Your task to perform on an android device: Open network settings Image 0: 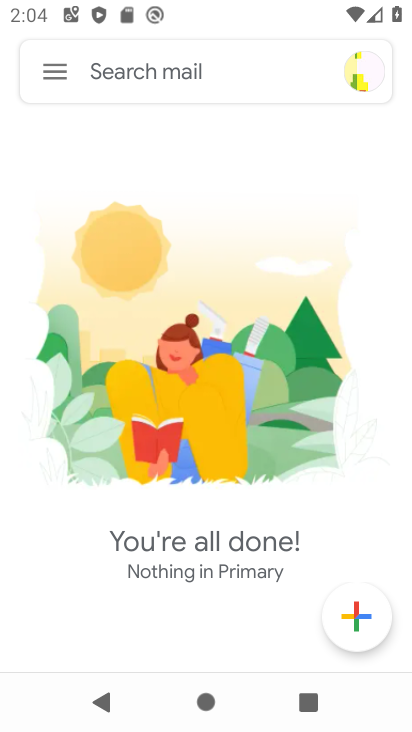
Step 0: press home button
Your task to perform on an android device: Open network settings Image 1: 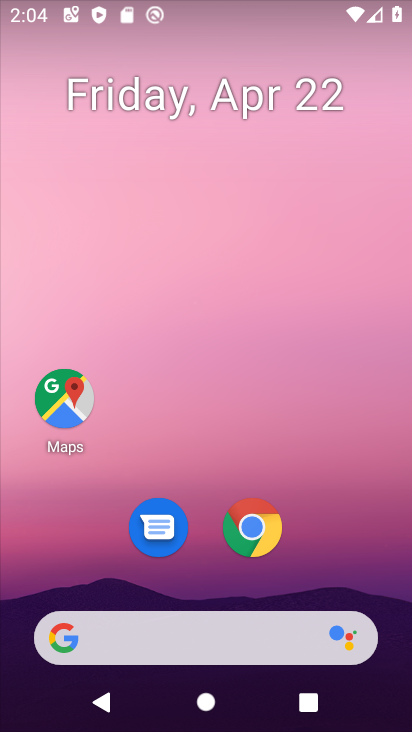
Step 1: drag from (294, 566) to (323, 115)
Your task to perform on an android device: Open network settings Image 2: 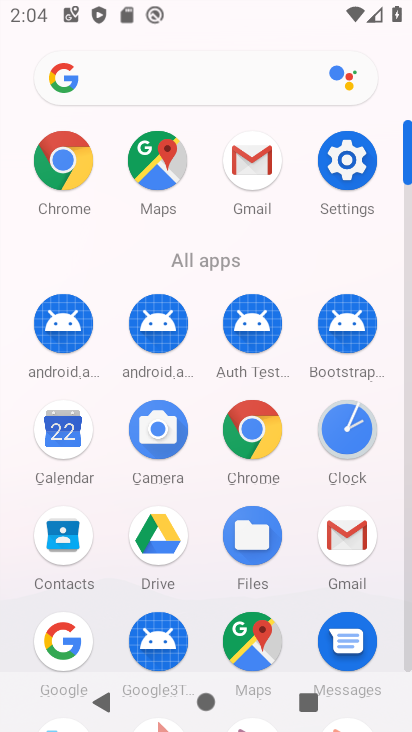
Step 2: drag from (308, 311) to (380, 34)
Your task to perform on an android device: Open network settings Image 3: 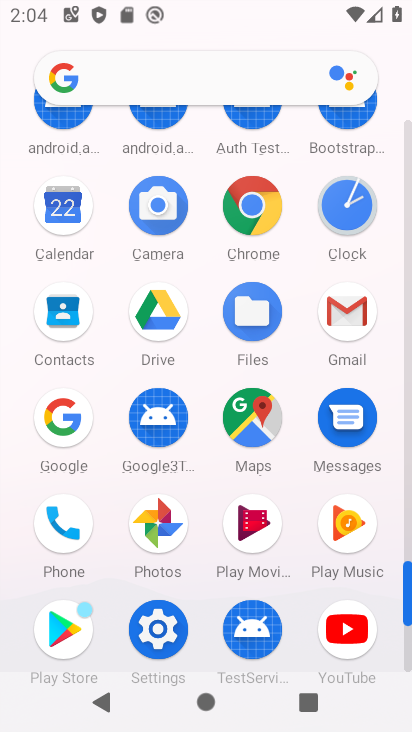
Step 3: click (156, 619)
Your task to perform on an android device: Open network settings Image 4: 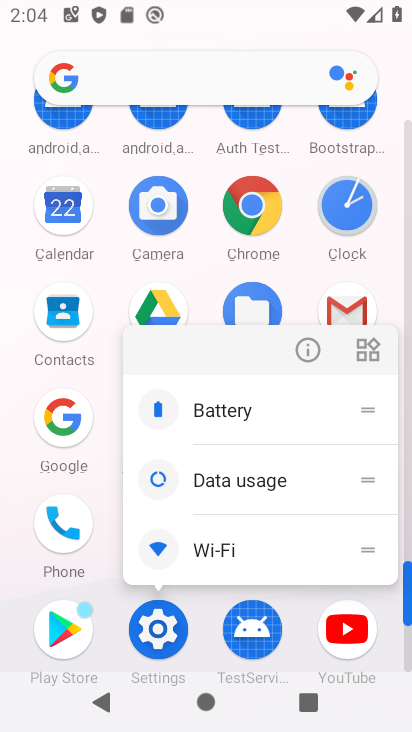
Step 4: click (167, 633)
Your task to perform on an android device: Open network settings Image 5: 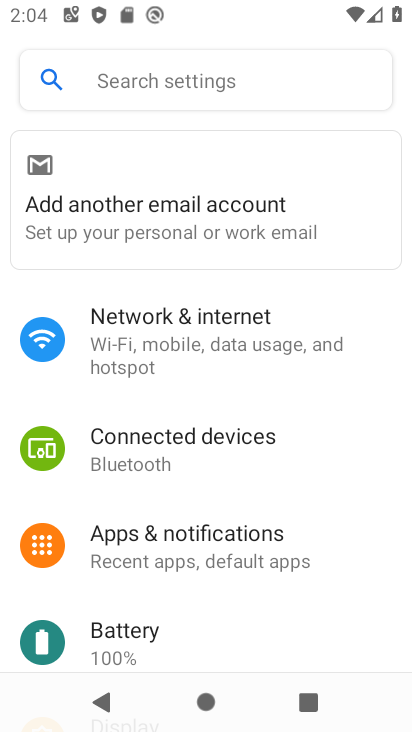
Step 5: click (175, 340)
Your task to perform on an android device: Open network settings Image 6: 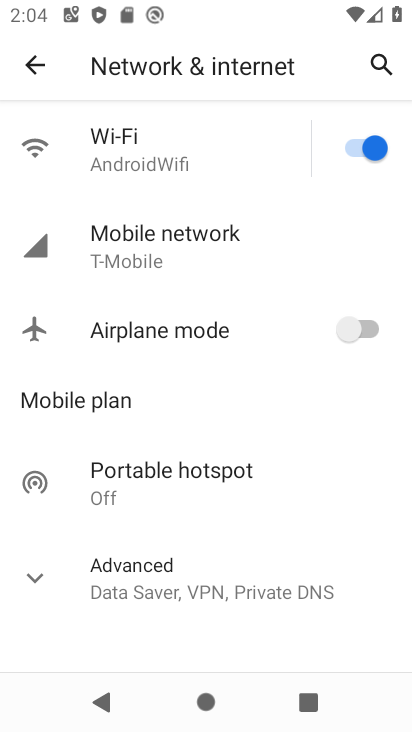
Step 6: task complete